Your task to perform on an android device: Open calendar and show me the fourth week of next month Image 0: 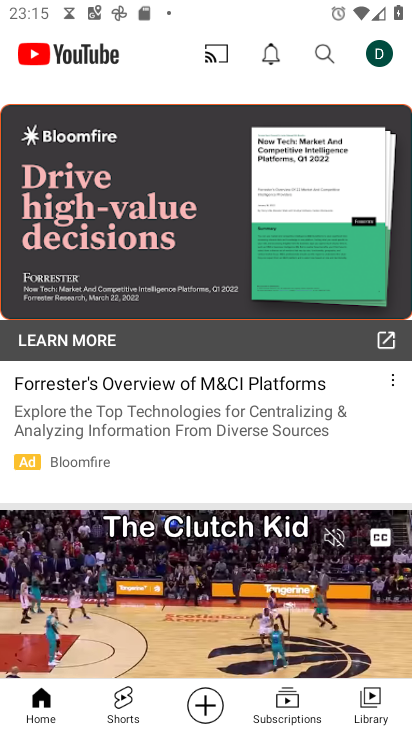
Step 0: press home button
Your task to perform on an android device: Open calendar and show me the fourth week of next month Image 1: 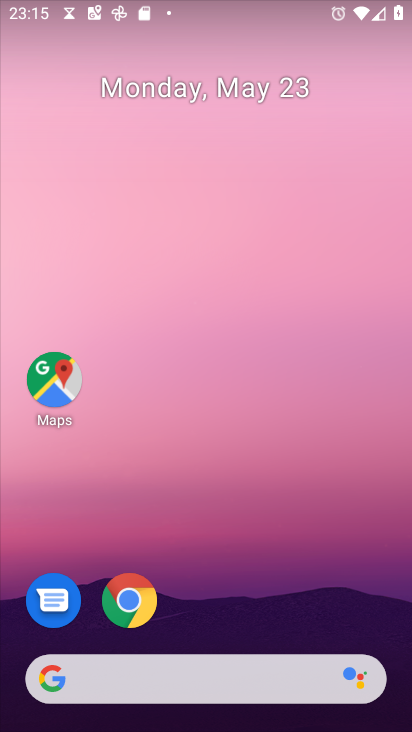
Step 1: drag from (238, 725) to (245, 63)
Your task to perform on an android device: Open calendar and show me the fourth week of next month Image 2: 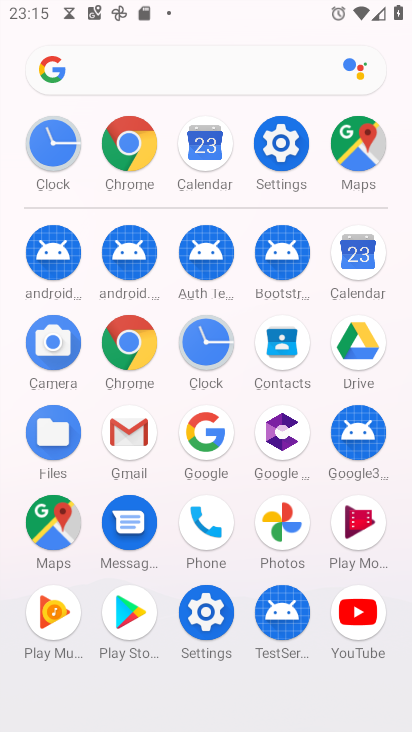
Step 2: click (360, 258)
Your task to perform on an android device: Open calendar and show me the fourth week of next month Image 3: 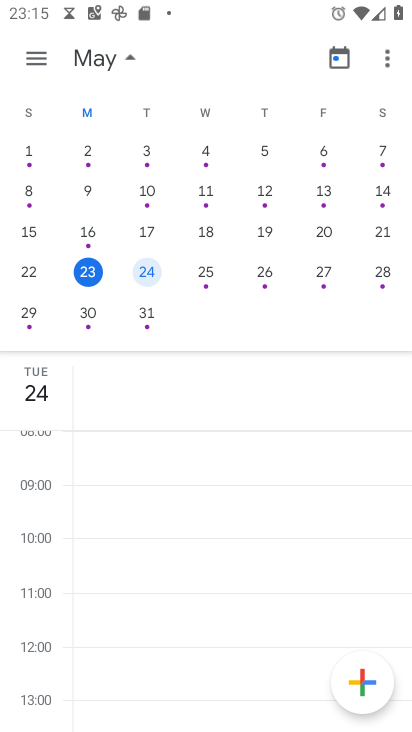
Step 3: drag from (328, 222) to (14, 217)
Your task to perform on an android device: Open calendar and show me the fourth week of next month Image 4: 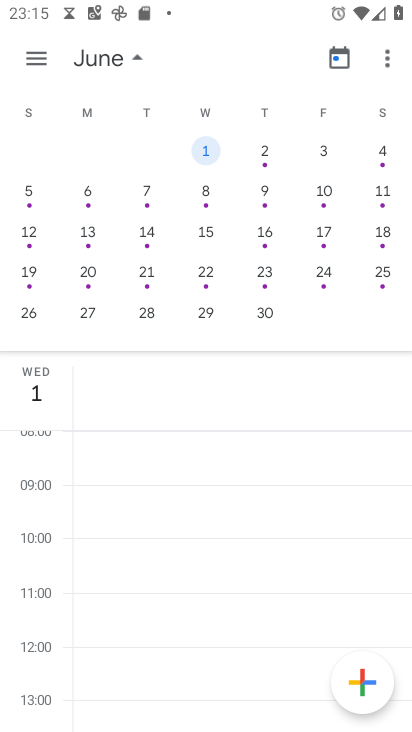
Step 4: click (86, 307)
Your task to perform on an android device: Open calendar and show me the fourth week of next month Image 5: 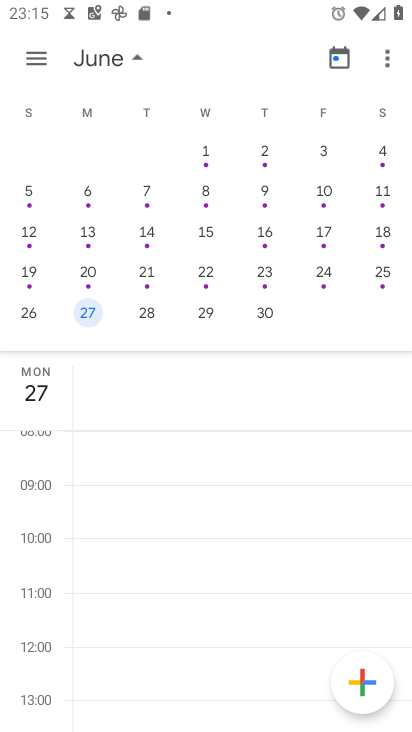
Step 5: click (83, 306)
Your task to perform on an android device: Open calendar and show me the fourth week of next month Image 6: 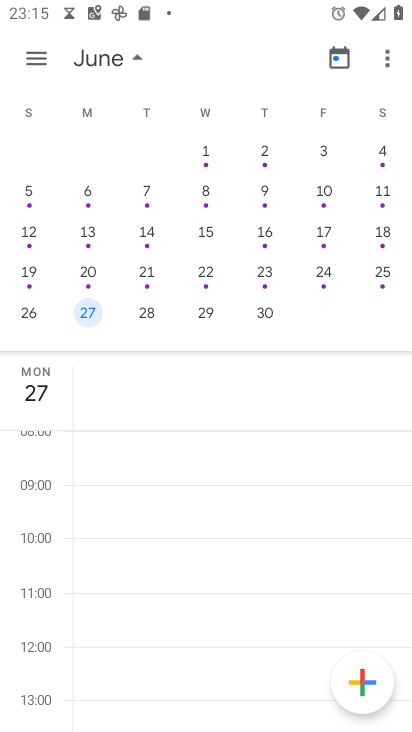
Step 6: click (137, 53)
Your task to perform on an android device: Open calendar and show me the fourth week of next month Image 7: 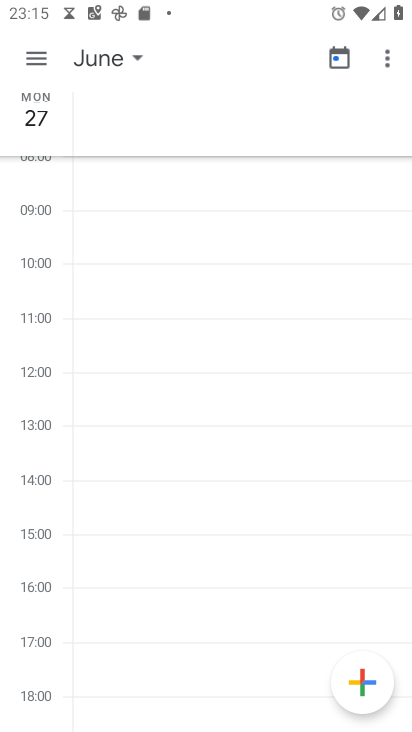
Step 7: click (38, 60)
Your task to perform on an android device: Open calendar and show me the fourth week of next month Image 8: 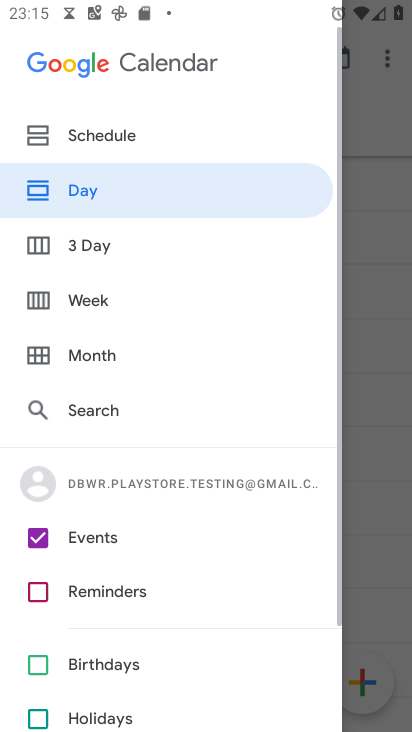
Step 8: click (79, 300)
Your task to perform on an android device: Open calendar and show me the fourth week of next month Image 9: 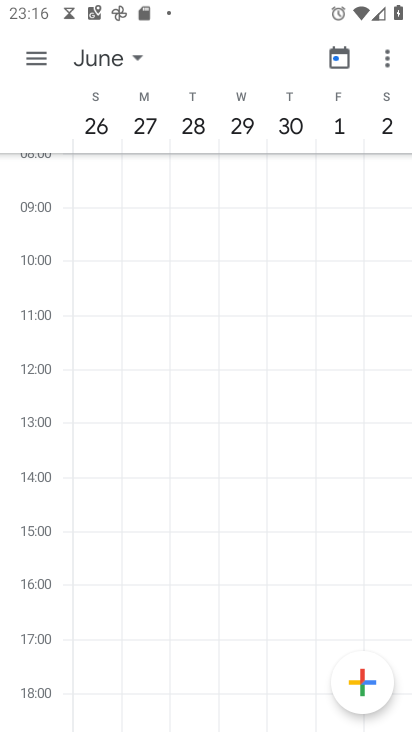
Step 9: task complete